Your task to perform on an android device: Set the phone to "Do not disturb". Image 0: 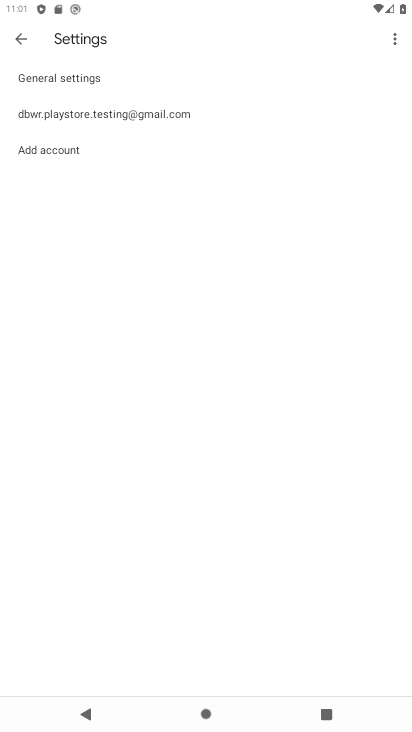
Step 0: press back button
Your task to perform on an android device: Set the phone to "Do not disturb". Image 1: 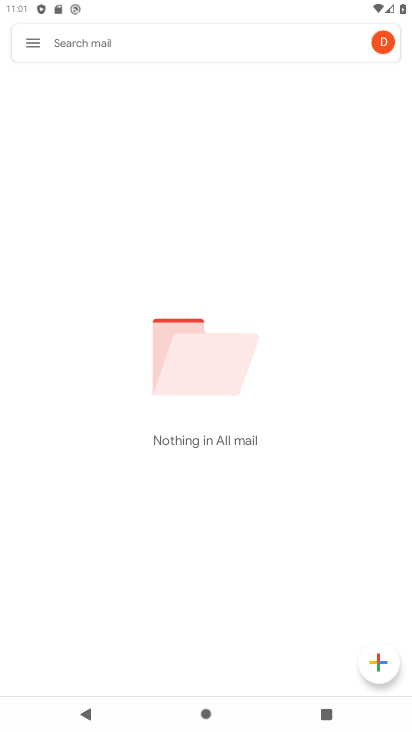
Step 1: press back button
Your task to perform on an android device: Set the phone to "Do not disturb". Image 2: 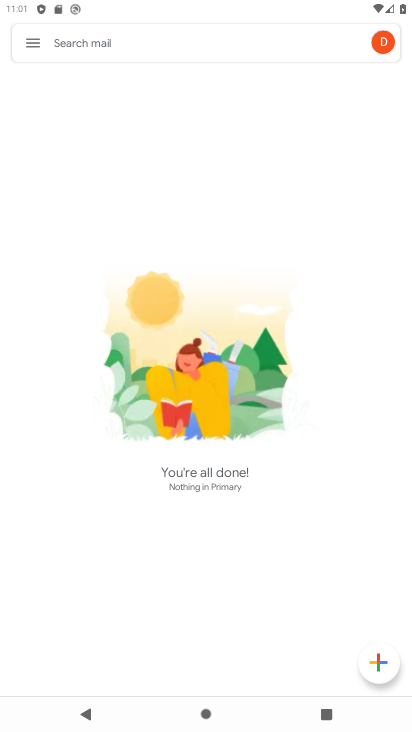
Step 2: press back button
Your task to perform on an android device: Set the phone to "Do not disturb". Image 3: 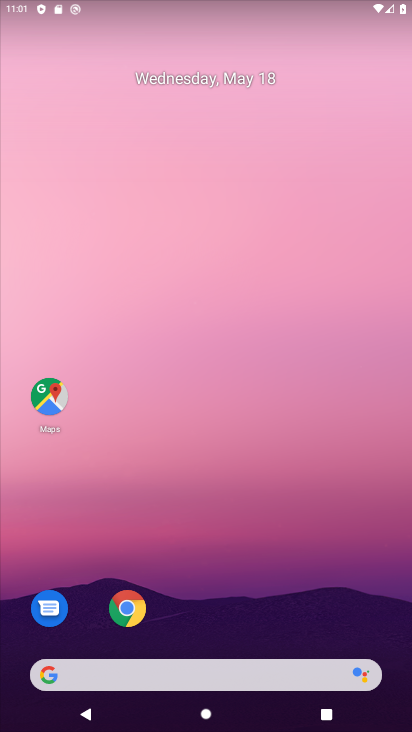
Step 3: drag from (262, 571) to (303, 65)
Your task to perform on an android device: Set the phone to "Do not disturb". Image 4: 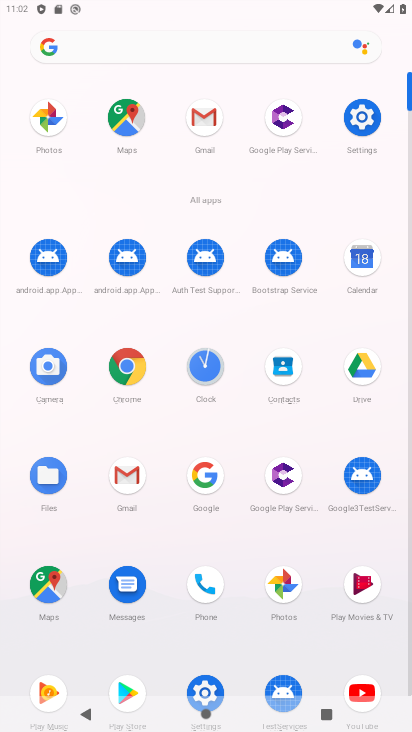
Step 4: click (361, 116)
Your task to perform on an android device: Set the phone to "Do not disturb". Image 5: 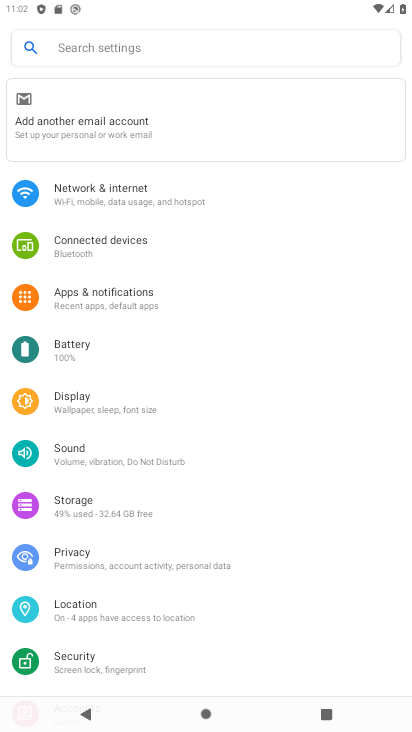
Step 5: click (112, 462)
Your task to perform on an android device: Set the phone to "Do not disturb". Image 6: 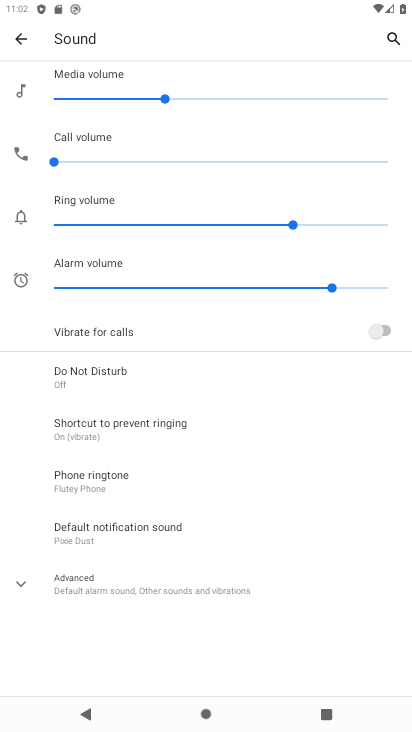
Step 6: click (120, 374)
Your task to perform on an android device: Set the phone to "Do not disturb". Image 7: 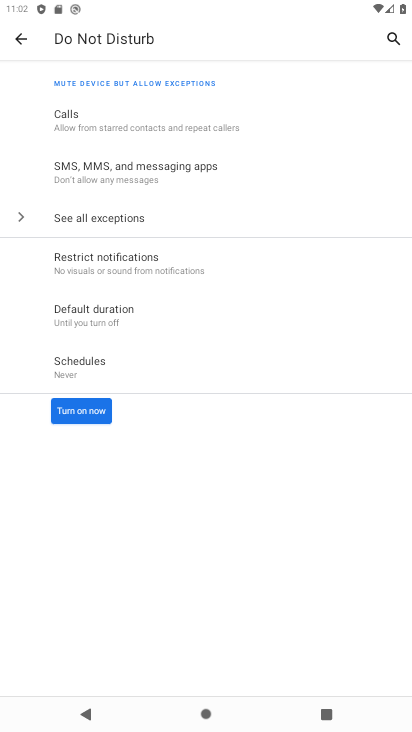
Step 7: click (79, 411)
Your task to perform on an android device: Set the phone to "Do not disturb". Image 8: 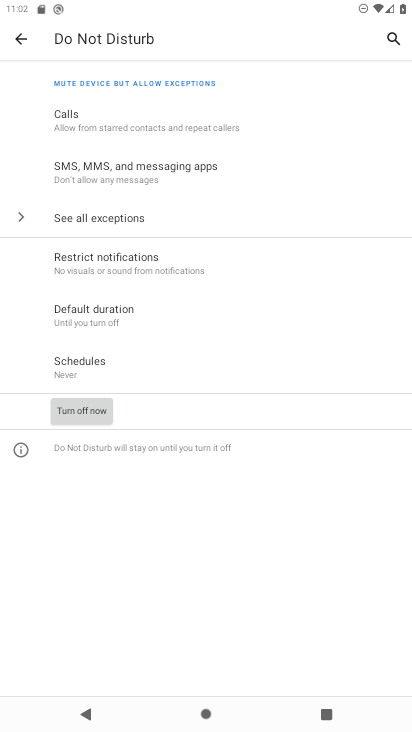
Step 8: task complete